Your task to perform on an android device: Go to Reddit.com Image 0: 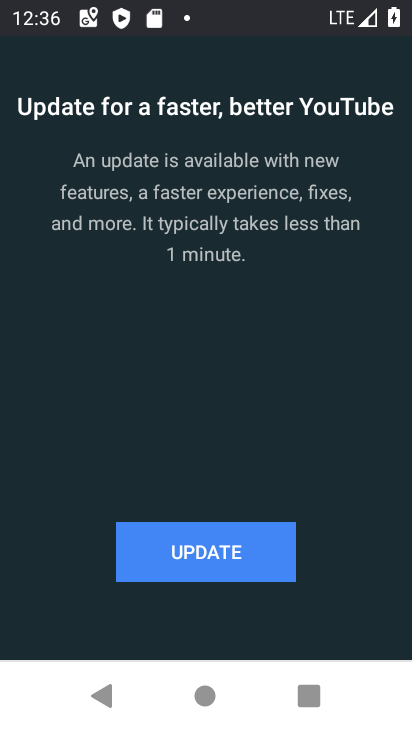
Step 0: press back button
Your task to perform on an android device: Go to Reddit.com Image 1: 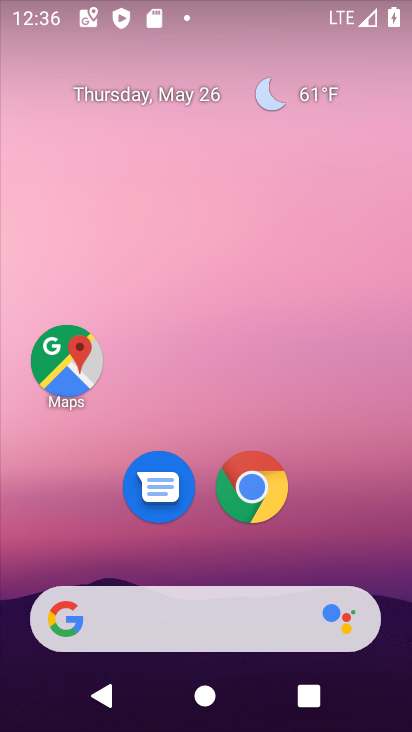
Step 1: drag from (262, 627) to (163, 133)
Your task to perform on an android device: Go to Reddit.com Image 2: 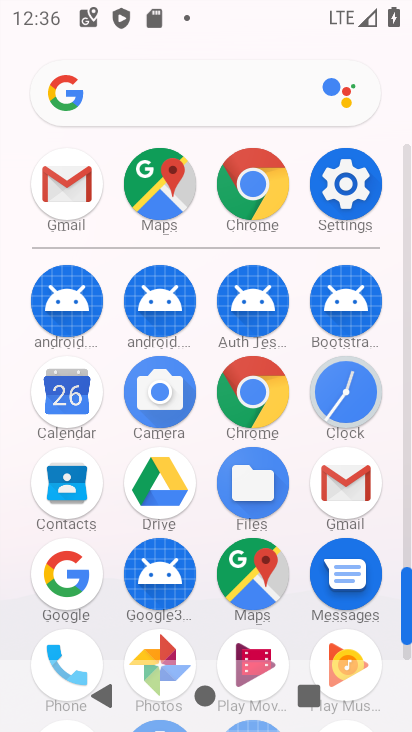
Step 2: click (245, 179)
Your task to perform on an android device: Go to Reddit.com Image 3: 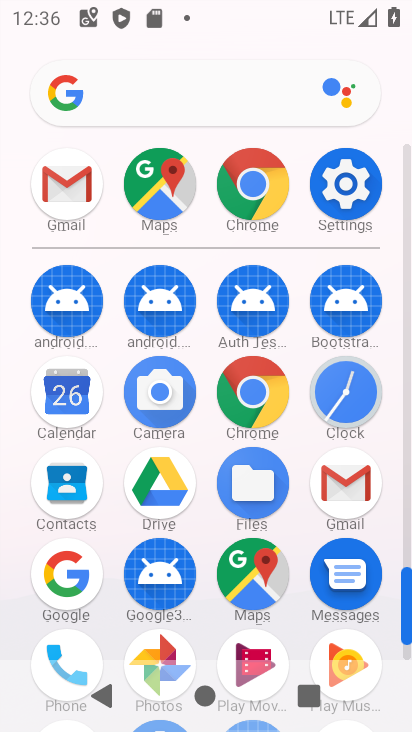
Step 3: click (246, 179)
Your task to perform on an android device: Go to Reddit.com Image 4: 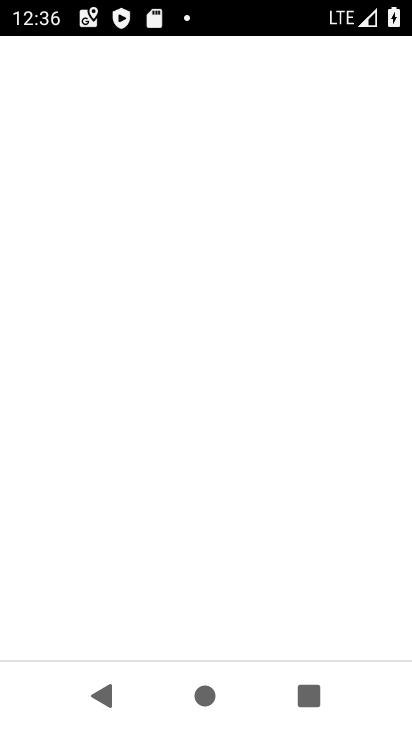
Step 4: click (246, 179)
Your task to perform on an android device: Go to Reddit.com Image 5: 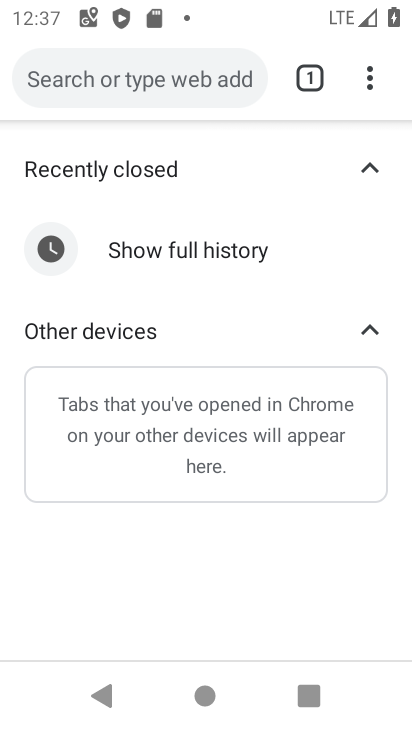
Step 5: click (362, 82)
Your task to perform on an android device: Go to Reddit.com Image 6: 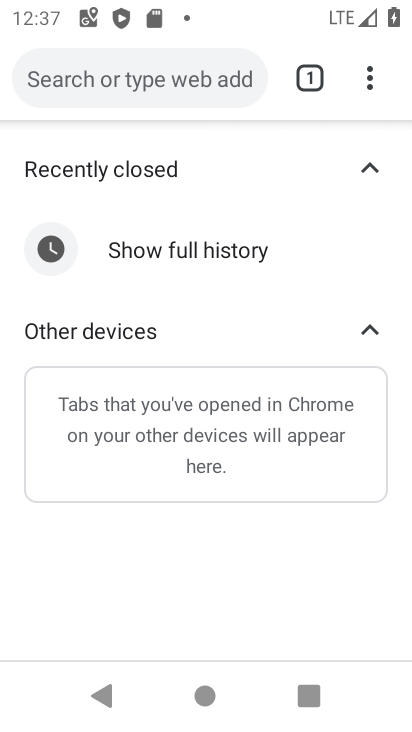
Step 6: drag from (368, 79) to (209, 152)
Your task to perform on an android device: Go to Reddit.com Image 7: 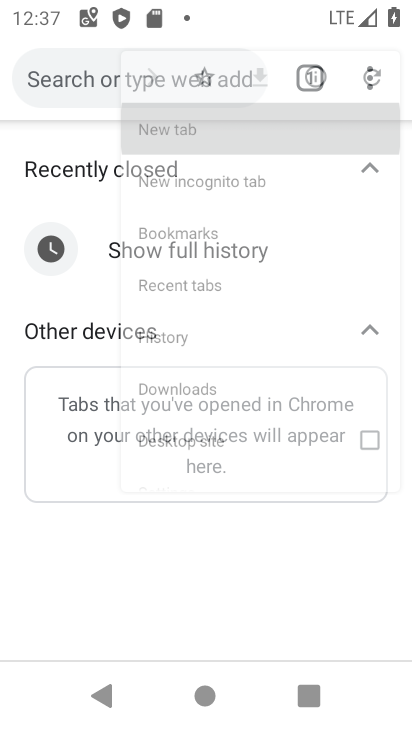
Step 7: click (82, 146)
Your task to perform on an android device: Go to Reddit.com Image 8: 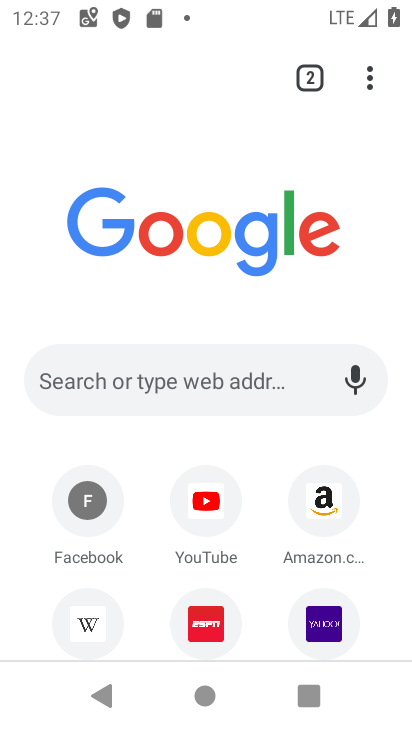
Step 8: click (73, 379)
Your task to perform on an android device: Go to Reddit.com Image 9: 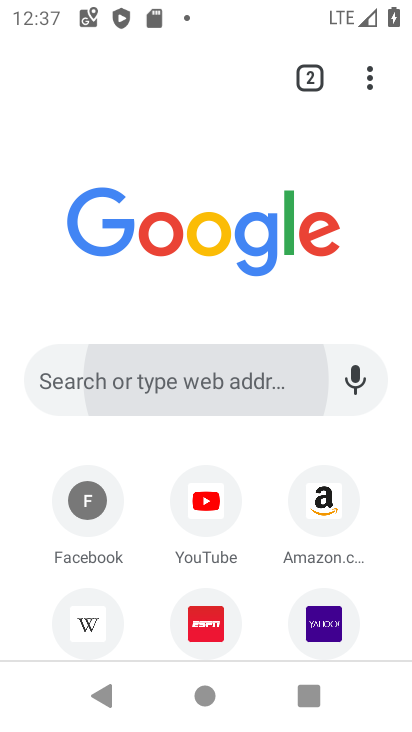
Step 9: click (76, 381)
Your task to perform on an android device: Go to Reddit.com Image 10: 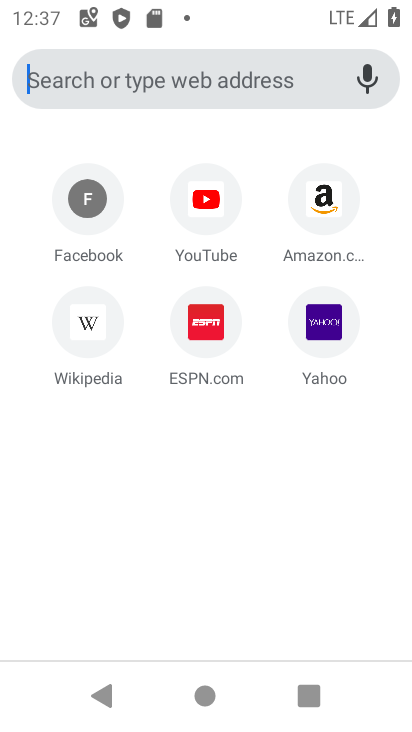
Step 10: click (76, 382)
Your task to perform on an android device: Go to Reddit.com Image 11: 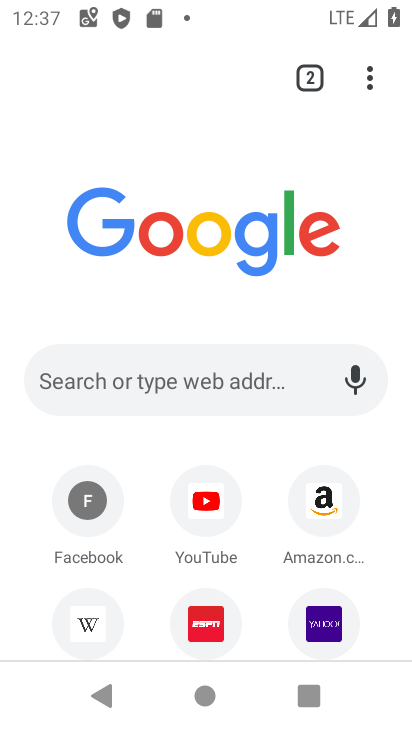
Step 11: click (72, 376)
Your task to perform on an android device: Go to Reddit.com Image 12: 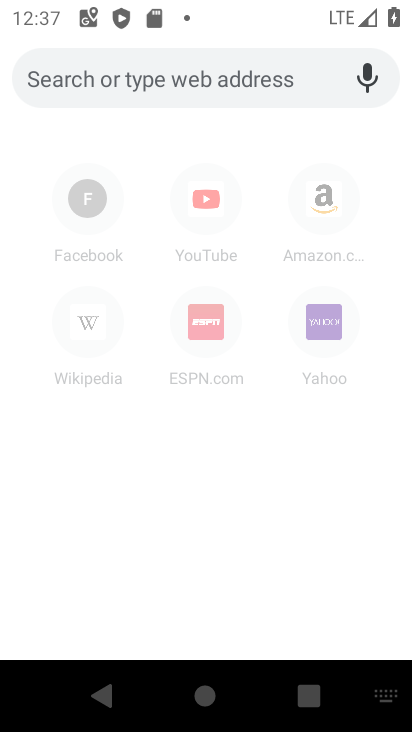
Step 12: type "reddit.com"
Your task to perform on an android device: Go to Reddit.com Image 13: 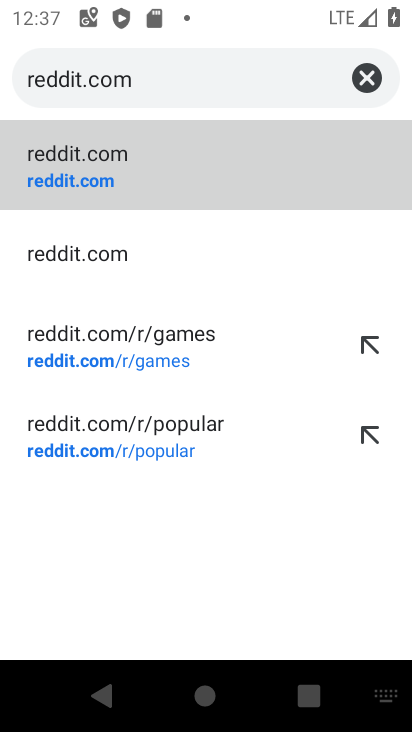
Step 13: click (51, 162)
Your task to perform on an android device: Go to Reddit.com Image 14: 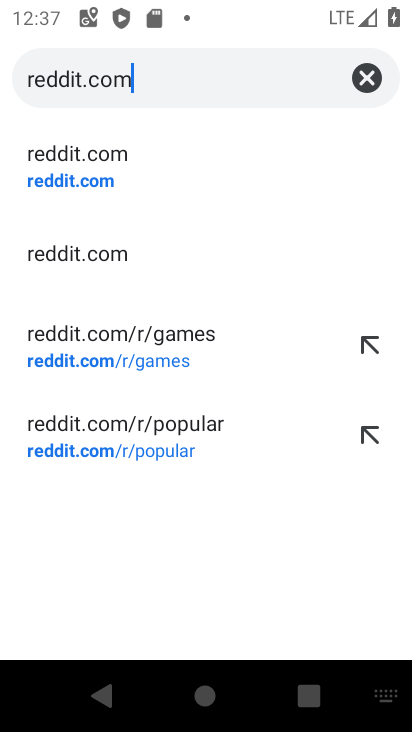
Step 14: click (72, 179)
Your task to perform on an android device: Go to Reddit.com Image 15: 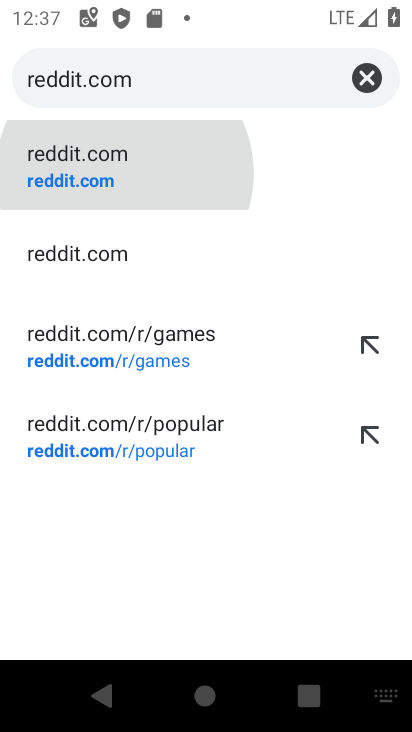
Step 15: click (75, 180)
Your task to perform on an android device: Go to Reddit.com Image 16: 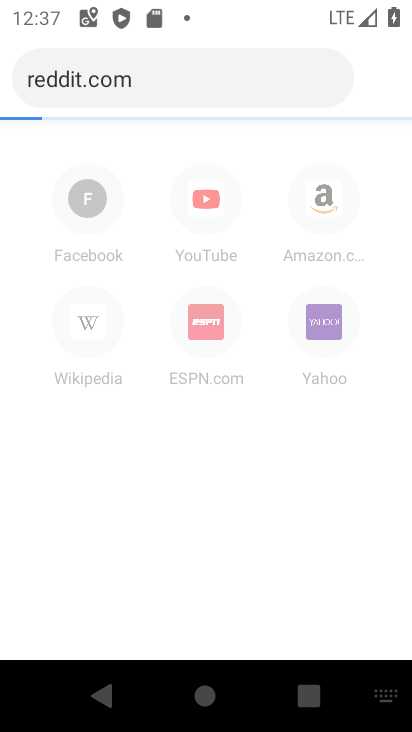
Step 16: click (75, 180)
Your task to perform on an android device: Go to Reddit.com Image 17: 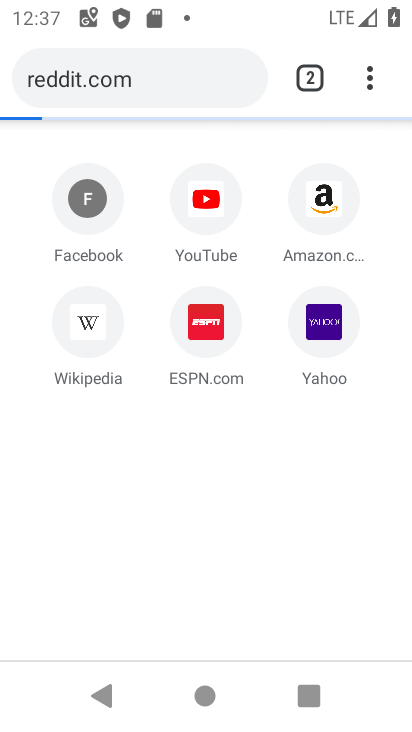
Step 17: click (82, 182)
Your task to perform on an android device: Go to Reddit.com Image 18: 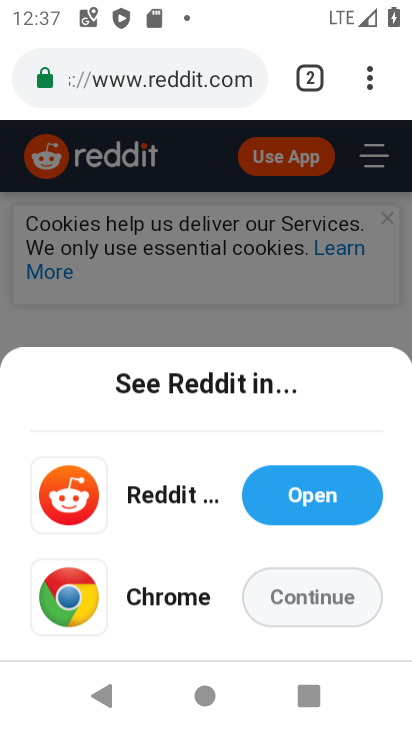
Step 18: task complete